Your task to perform on an android device: Go to Google maps Image 0: 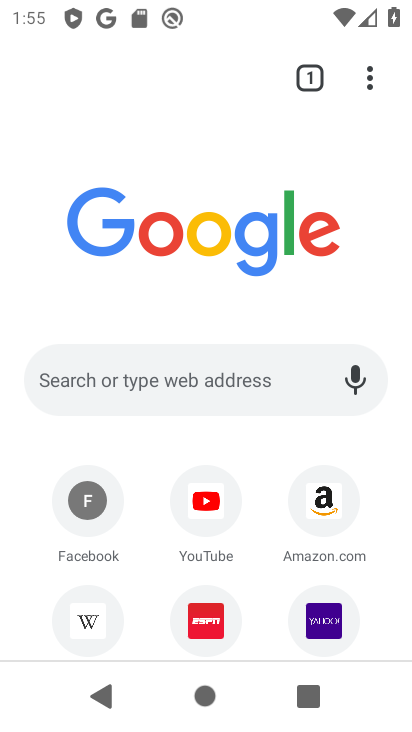
Step 0: press back button
Your task to perform on an android device: Go to Google maps Image 1: 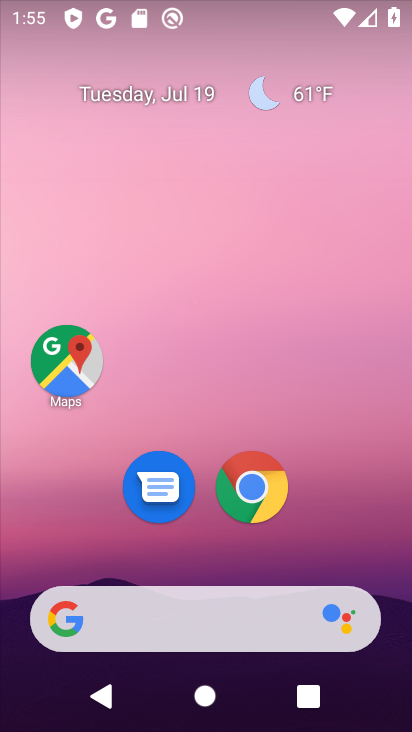
Step 1: click (67, 361)
Your task to perform on an android device: Go to Google maps Image 2: 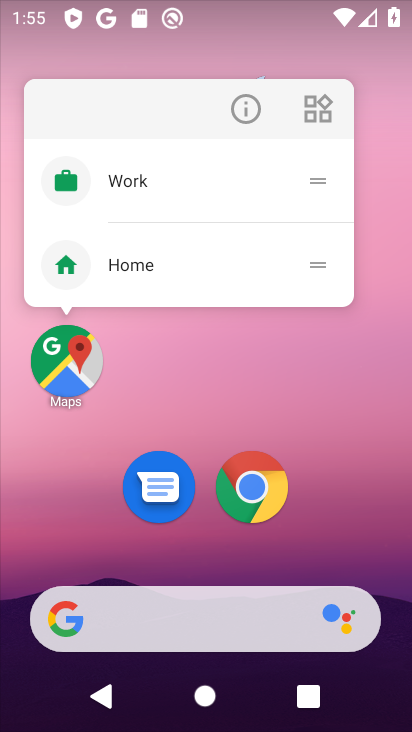
Step 2: click (67, 361)
Your task to perform on an android device: Go to Google maps Image 3: 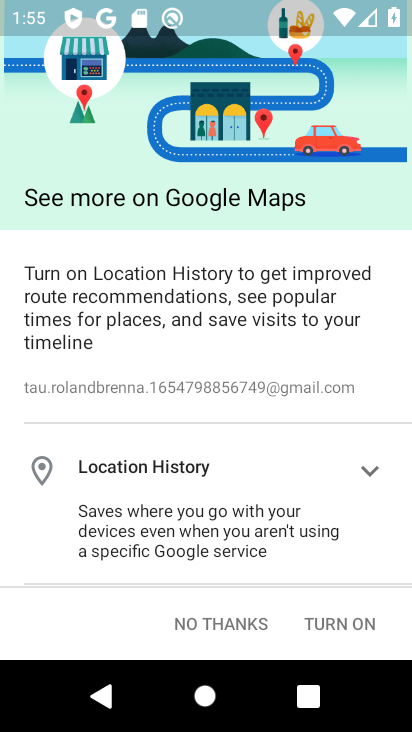
Step 3: click (239, 615)
Your task to perform on an android device: Go to Google maps Image 4: 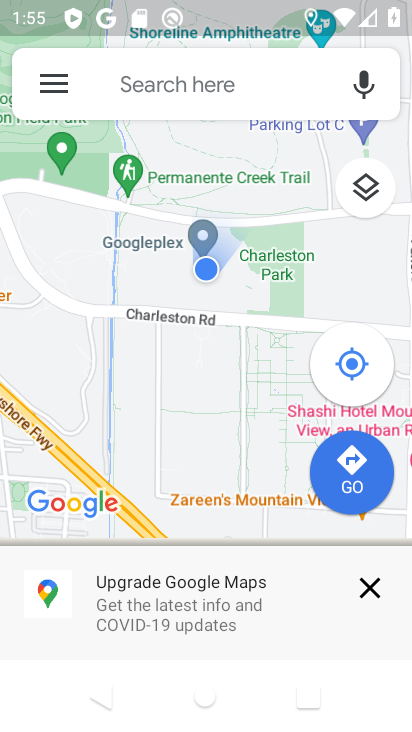
Step 4: task complete